Your task to perform on an android device: Search for a custom made wallet Image 0: 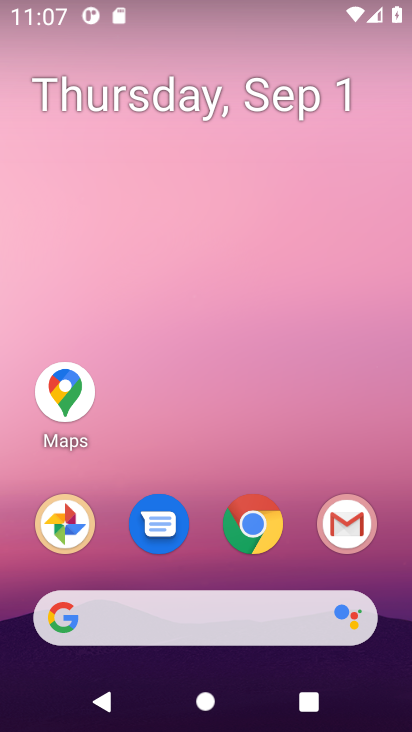
Step 0: click (205, 624)
Your task to perform on an android device: Search for a custom made wallet Image 1: 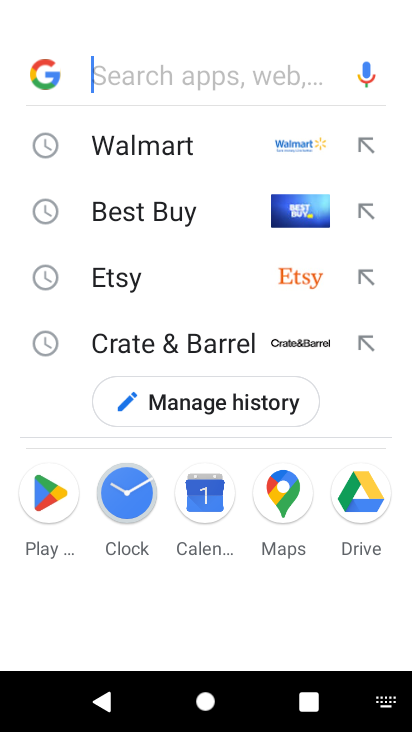
Step 1: press enter
Your task to perform on an android device: Search for a custom made wallet Image 2: 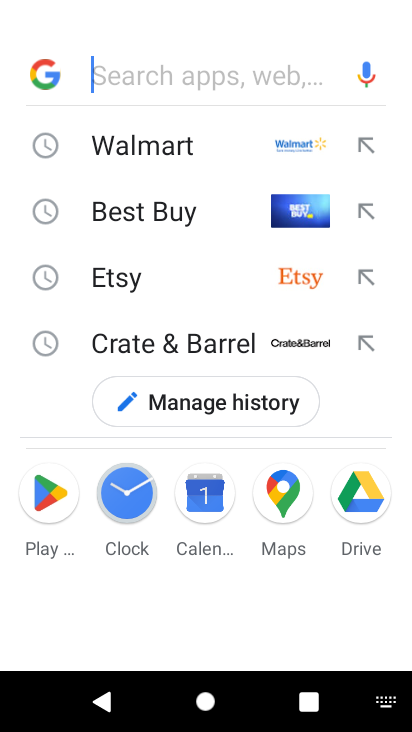
Step 2: type " custom made wallet"
Your task to perform on an android device: Search for a custom made wallet Image 3: 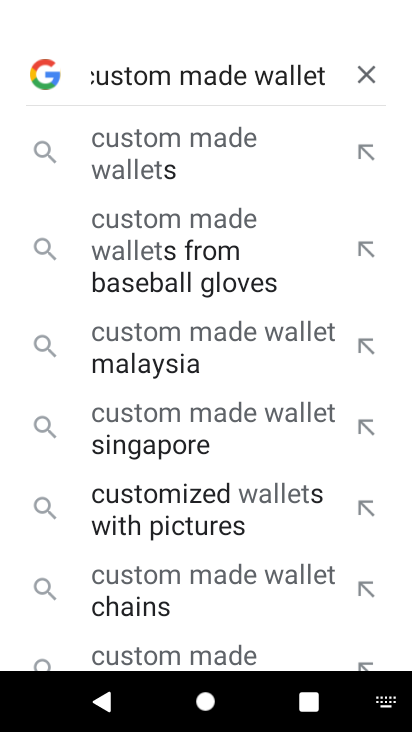
Step 3: click (182, 150)
Your task to perform on an android device: Search for a custom made wallet Image 4: 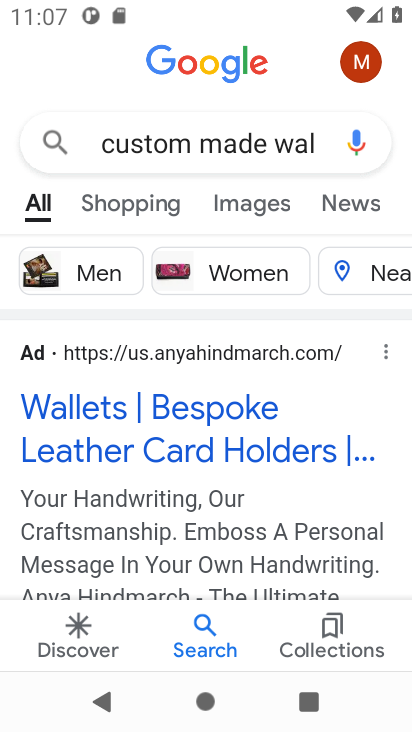
Step 4: task complete